Your task to perform on an android device: Go to network settings Image 0: 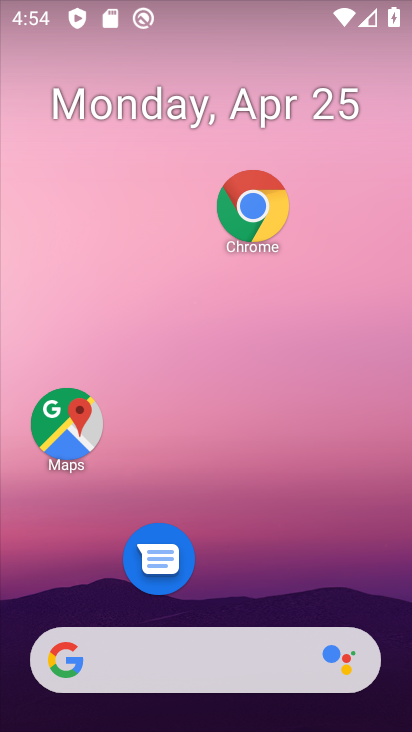
Step 0: drag from (312, 556) to (175, 74)
Your task to perform on an android device: Go to network settings Image 1: 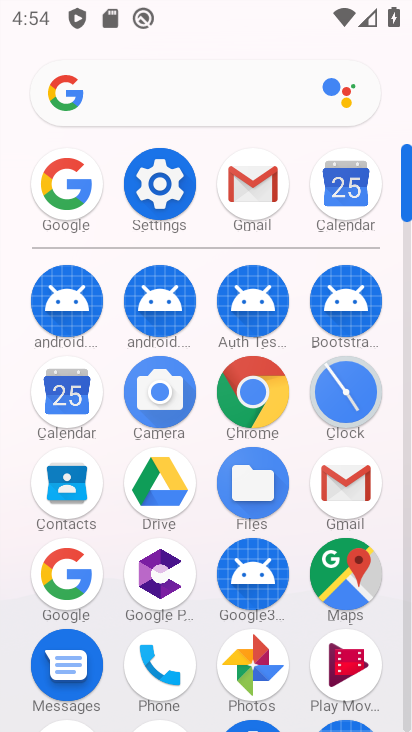
Step 1: click (161, 181)
Your task to perform on an android device: Go to network settings Image 2: 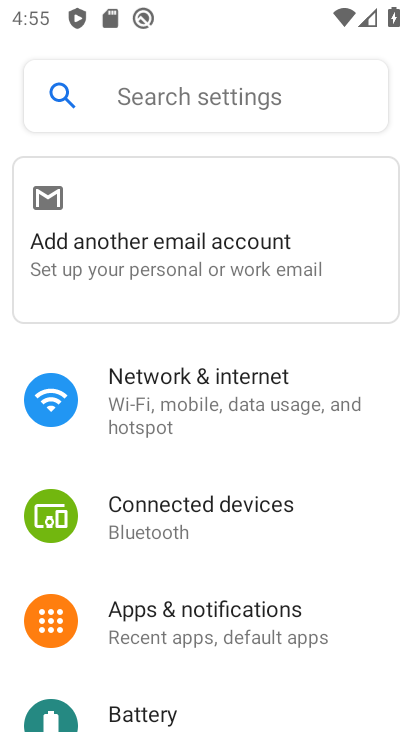
Step 2: click (203, 384)
Your task to perform on an android device: Go to network settings Image 3: 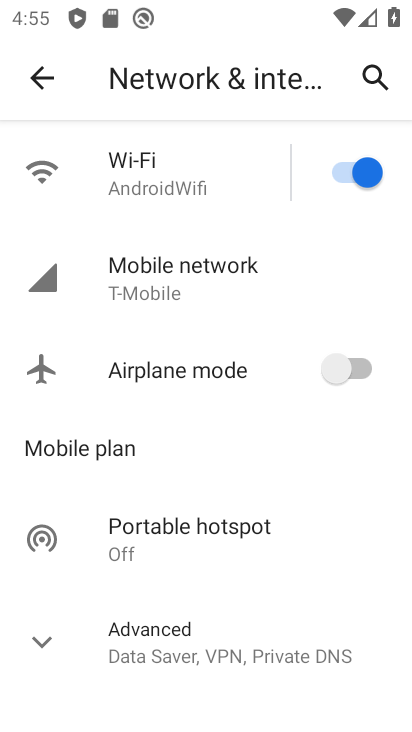
Step 3: click (201, 265)
Your task to perform on an android device: Go to network settings Image 4: 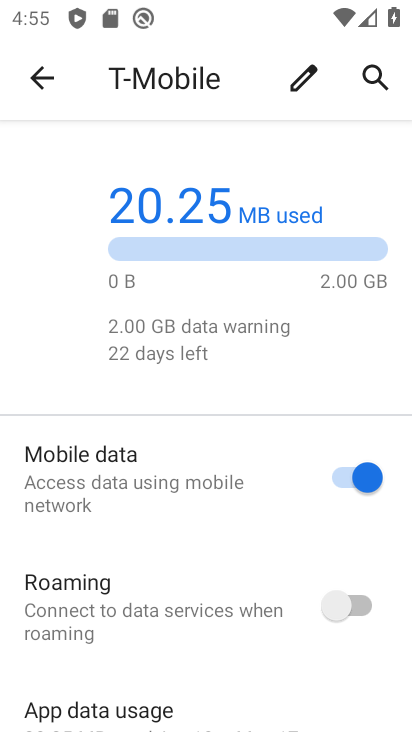
Step 4: task complete